Your task to perform on an android device: open a bookmark in the chrome app Image 0: 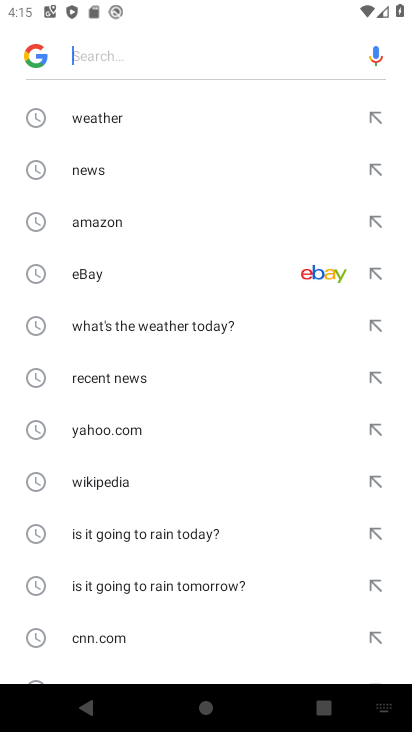
Step 0: press back button
Your task to perform on an android device: open a bookmark in the chrome app Image 1: 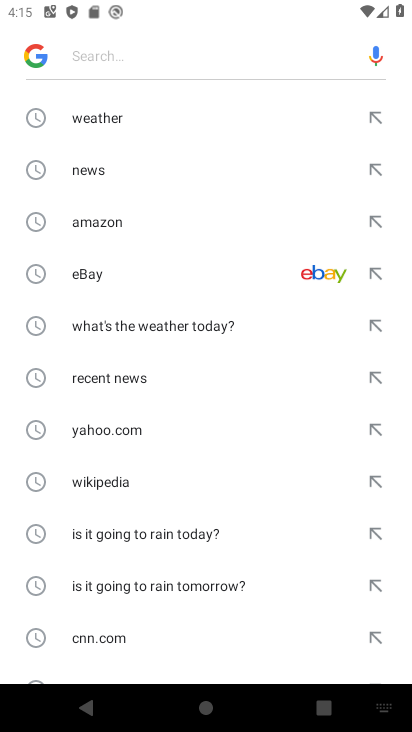
Step 1: press back button
Your task to perform on an android device: open a bookmark in the chrome app Image 2: 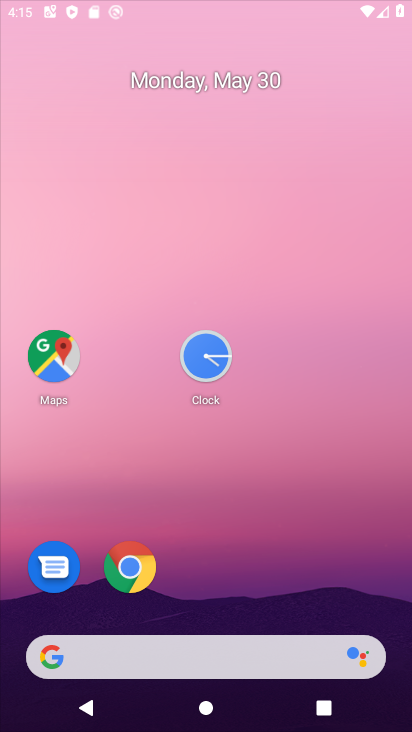
Step 2: press back button
Your task to perform on an android device: open a bookmark in the chrome app Image 3: 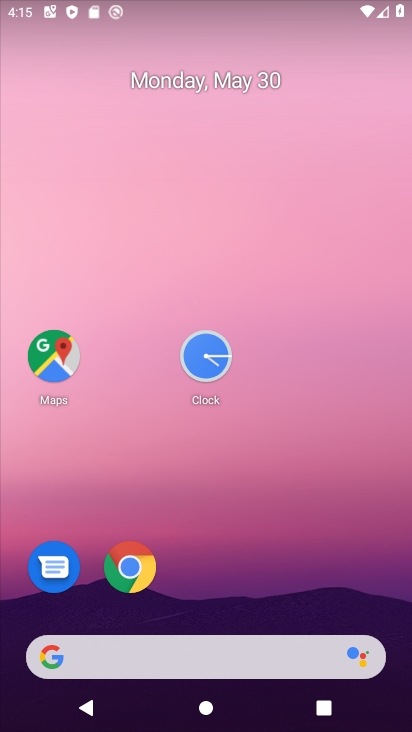
Step 3: drag from (271, 698) to (180, 34)
Your task to perform on an android device: open a bookmark in the chrome app Image 4: 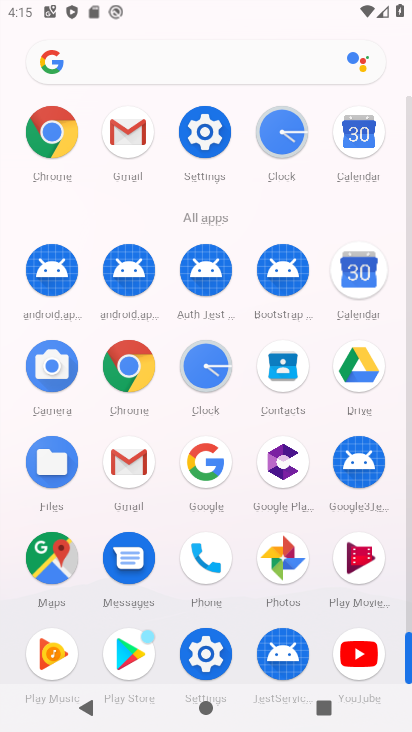
Step 4: click (54, 140)
Your task to perform on an android device: open a bookmark in the chrome app Image 5: 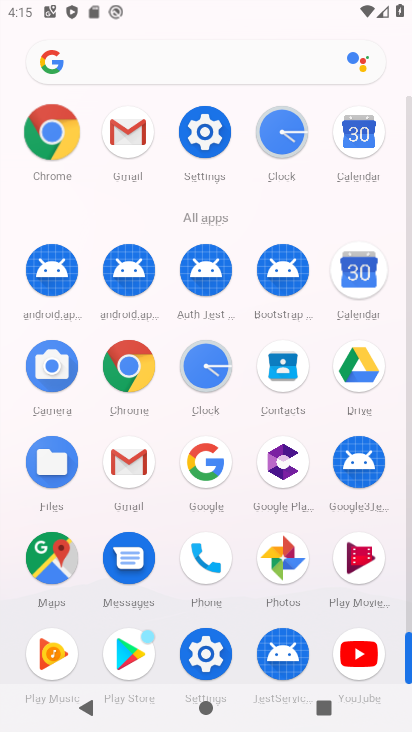
Step 5: click (54, 140)
Your task to perform on an android device: open a bookmark in the chrome app Image 6: 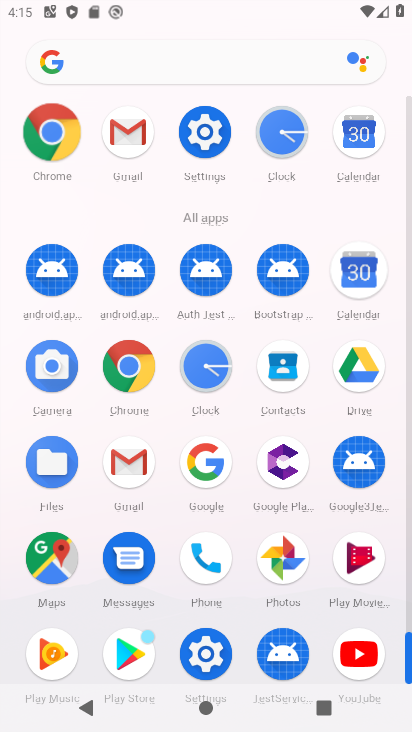
Step 6: click (54, 140)
Your task to perform on an android device: open a bookmark in the chrome app Image 7: 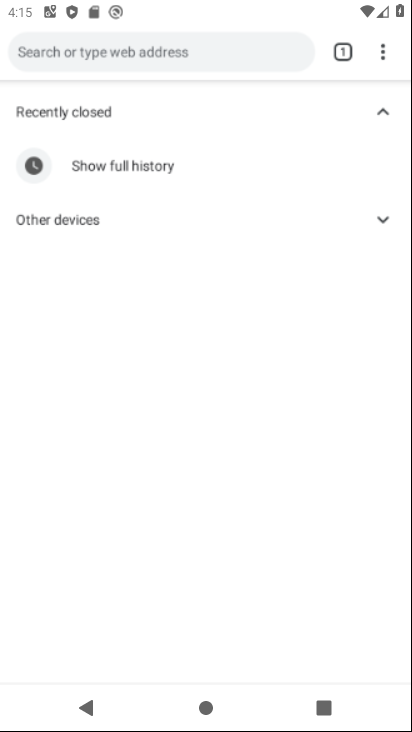
Step 7: click (55, 139)
Your task to perform on an android device: open a bookmark in the chrome app Image 8: 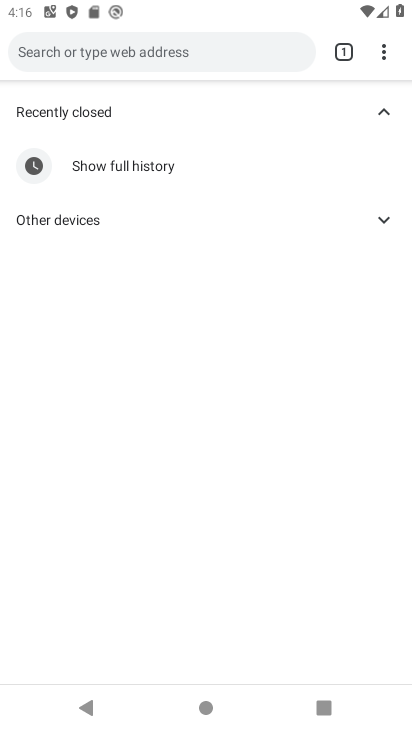
Step 8: drag from (382, 50) to (212, 198)
Your task to perform on an android device: open a bookmark in the chrome app Image 9: 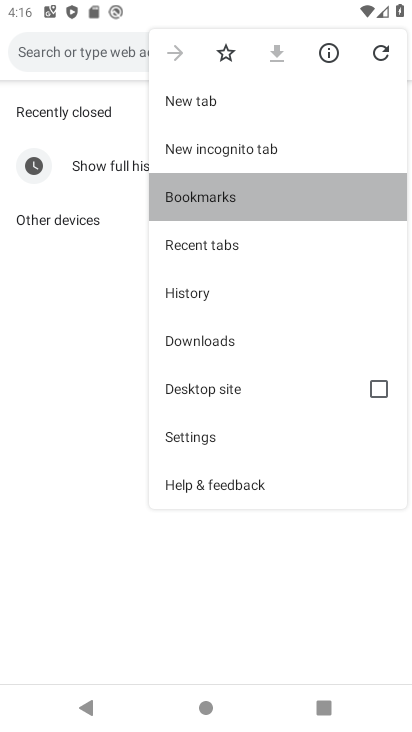
Step 9: click (211, 199)
Your task to perform on an android device: open a bookmark in the chrome app Image 10: 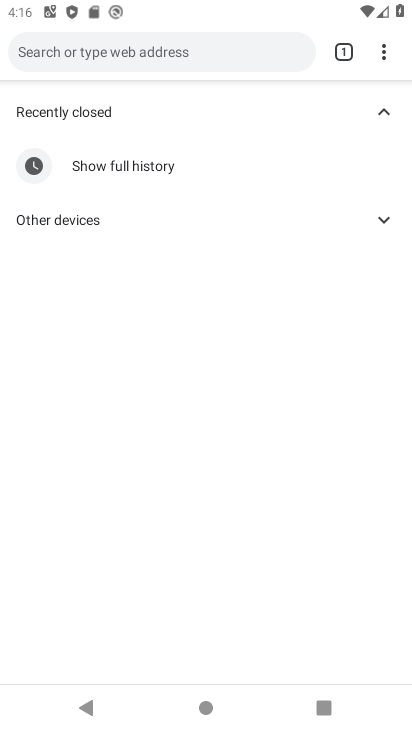
Step 10: click (211, 200)
Your task to perform on an android device: open a bookmark in the chrome app Image 11: 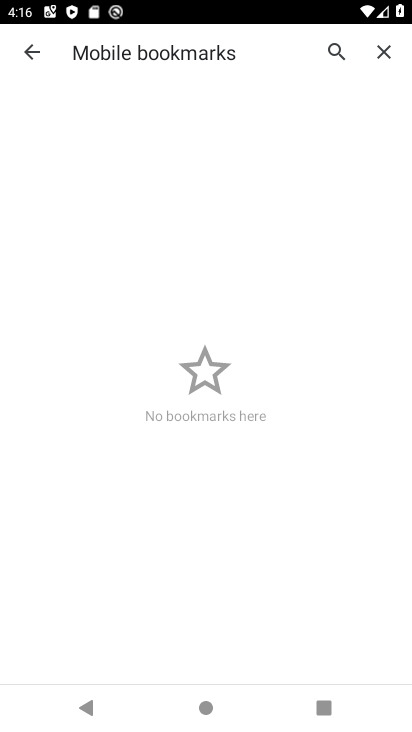
Step 11: task complete